Your task to perform on an android device: turn pop-ups off in chrome Image 0: 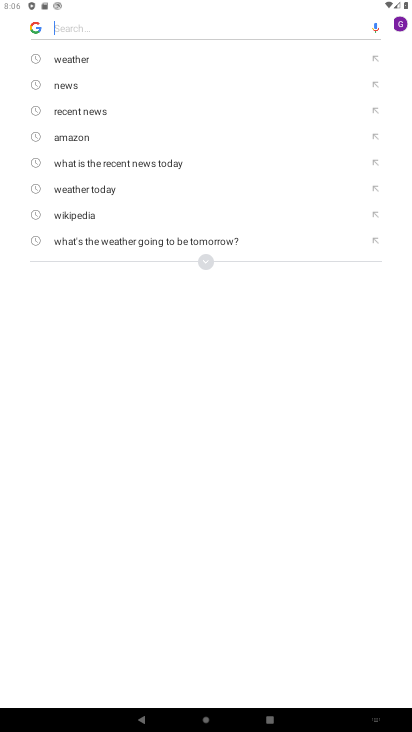
Step 0: press home button
Your task to perform on an android device: turn pop-ups off in chrome Image 1: 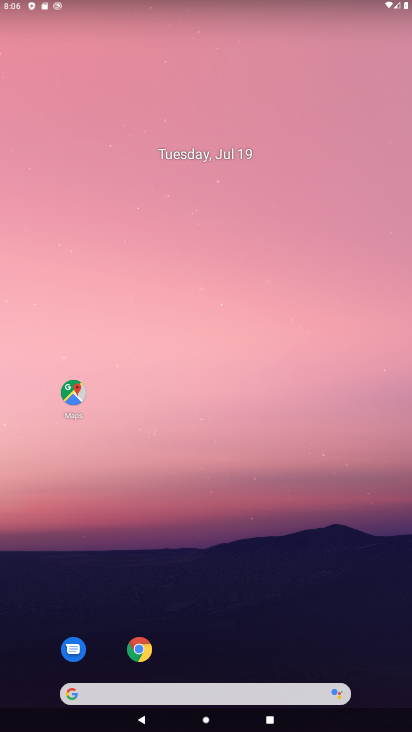
Step 1: drag from (245, 667) to (302, 87)
Your task to perform on an android device: turn pop-ups off in chrome Image 2: 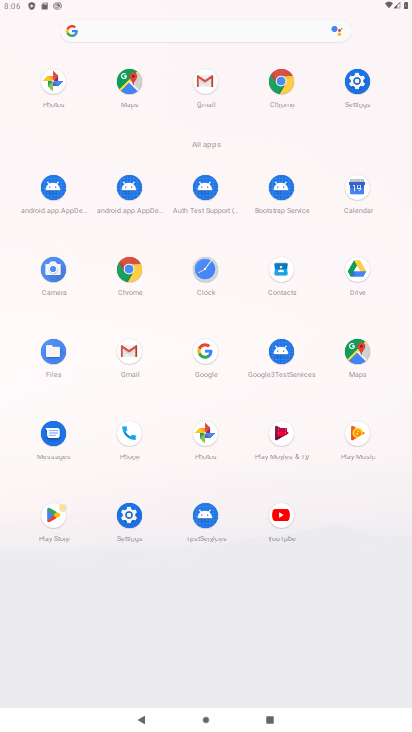
Step 2: click (128, 264)
Your task to perform on an android device: turn pop-ups off in chrome Image 3: 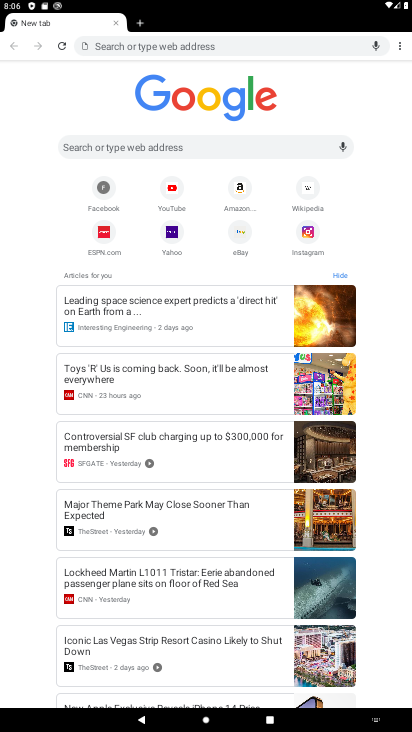
Step 3: drag from (395, 45) to (355, 214)
Your task to perform on an android device: turn pop-ups off in chrome Image 4: 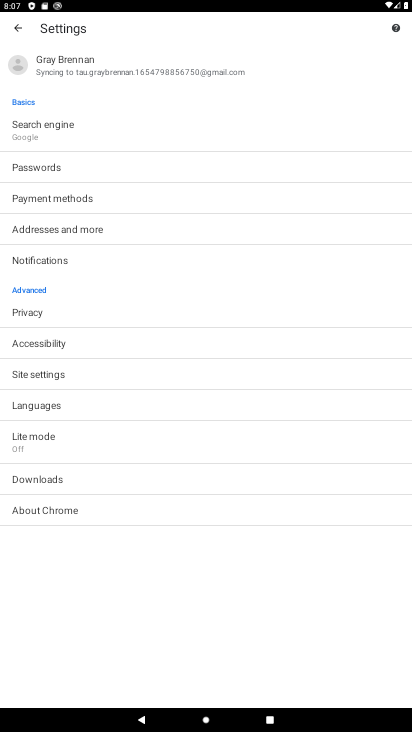
Step 4: click (85, 377)
Your task to perform on an android device: turn pop-ups off in chrome Image 5: 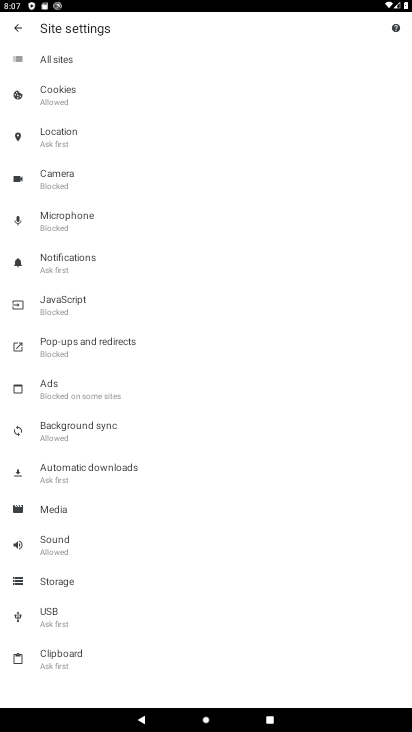
Step 5: click (123, 347)
Your task to perform on an android device: turn pop-ups off in chrome Image 6: 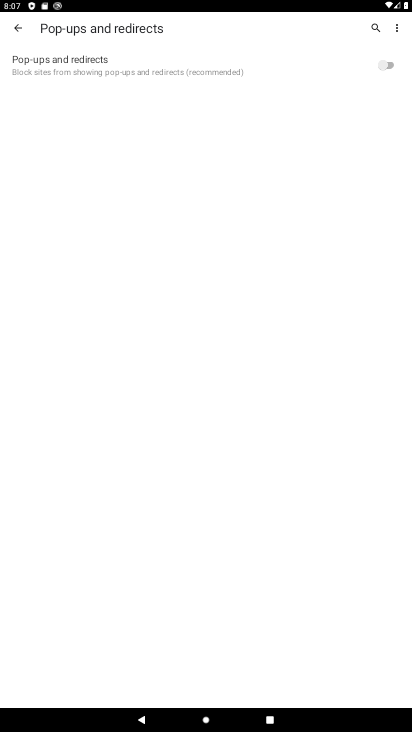
Step 6: task complete